Your task to perform on an android device: clear history in the chrome app Image 0: 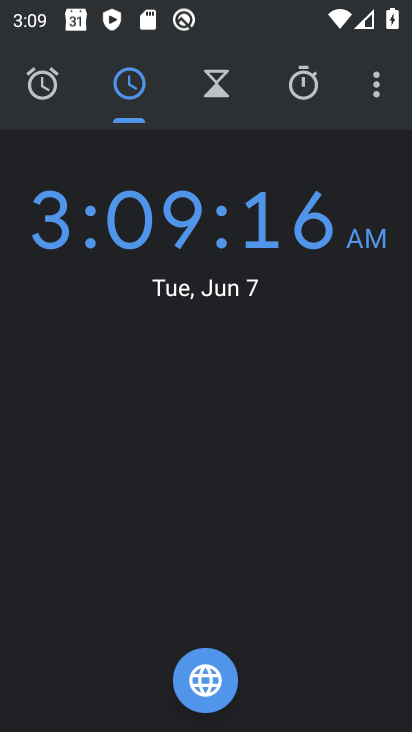
Step 0: press home button
Your task to perform on an android device: clear history in the chrome app Image 1: 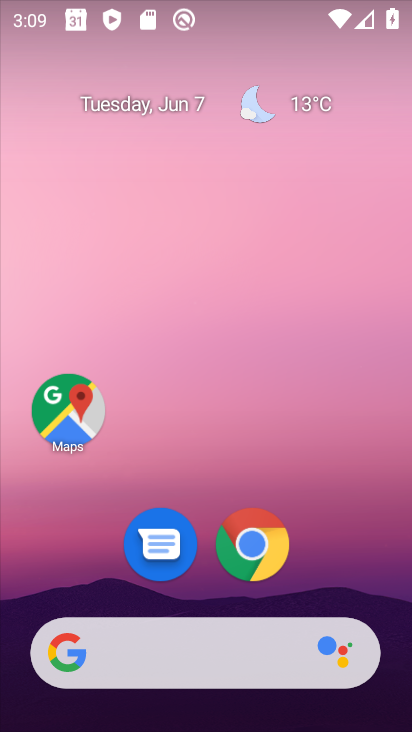
Step 1: click (250, 535)
Your task to perform on an android device: clear history in the chrome app Image 2: 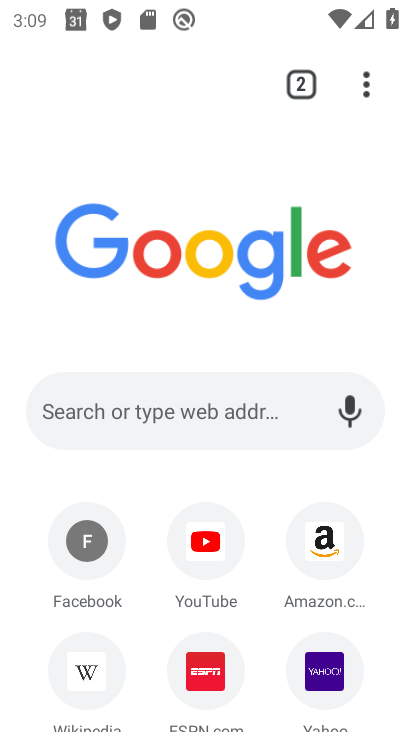
Step 2: click (363, 82)
Your task to perform on an android device: clear history in the chrome app Image 3: 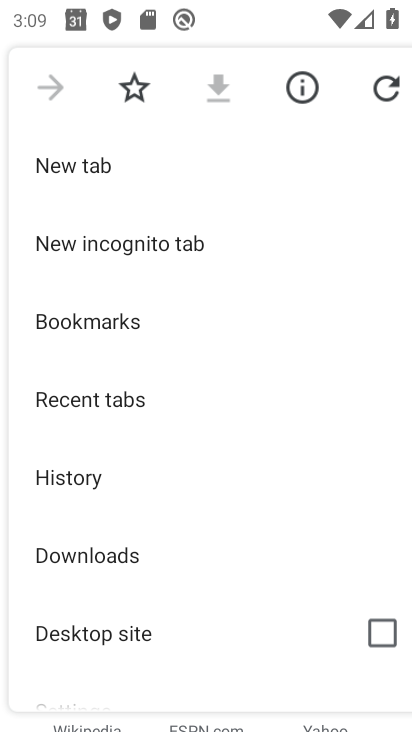
Step 3: click (111, 478)
Your task to perform on an android device: clear history in the chrome app Image 4: 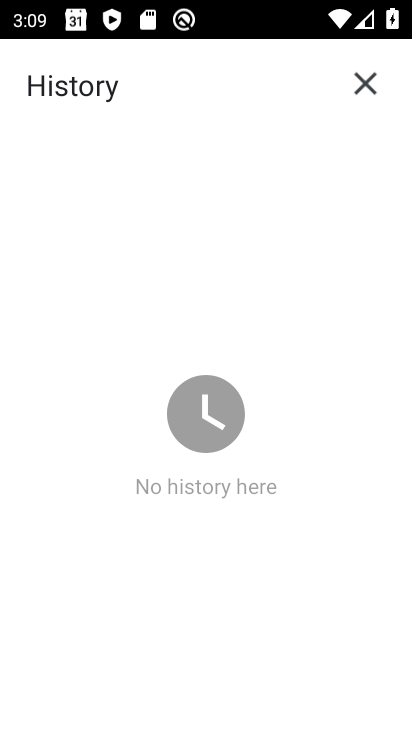
Step 4: task complete